Your task to perform on an android device: What is the recent news? Image 0: 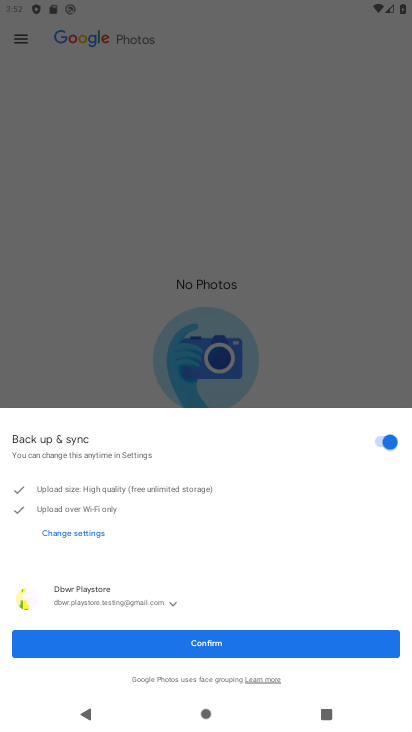
Step 0: press home button
Your task to perform on an android device: What is the recent news? Image 1: 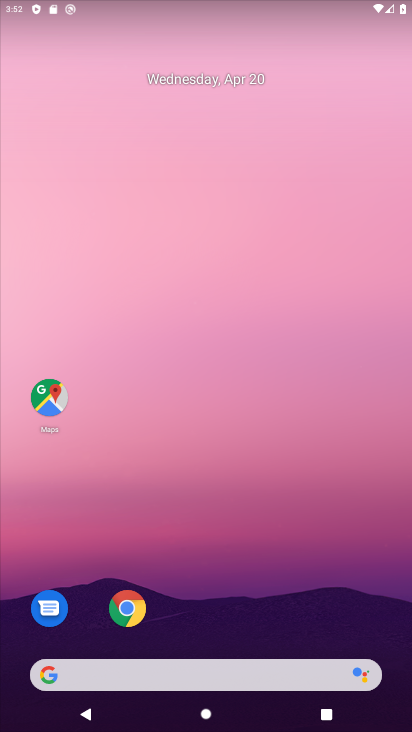
Step 1: task complete